Your task to perform on an android device: turn pop-ups off in chrome Image 0: 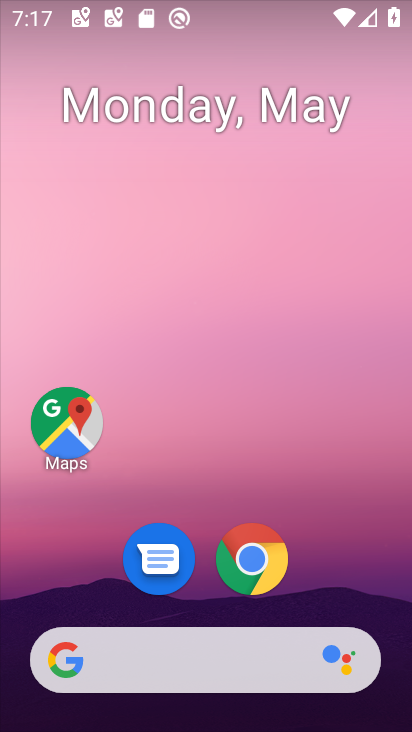
Step 0: drag from (389, 646) to (310, 69)
Your task to perform on an android device: turn pop-ups off in chrome Image 1: 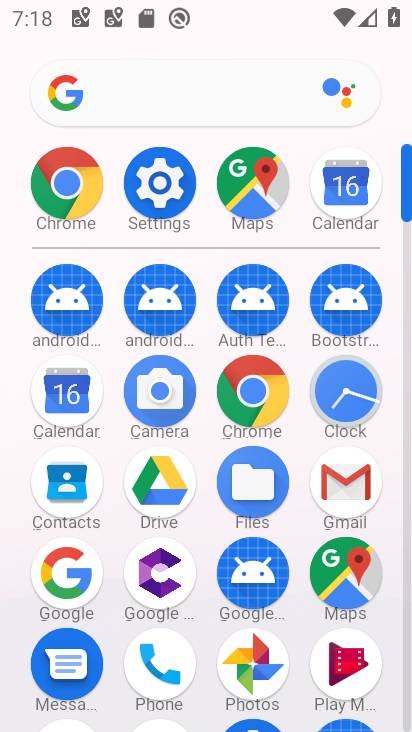
Step 1: click (42, 180)
Your task to perform on an android device: turn pop-ups off in chrome Image 2: 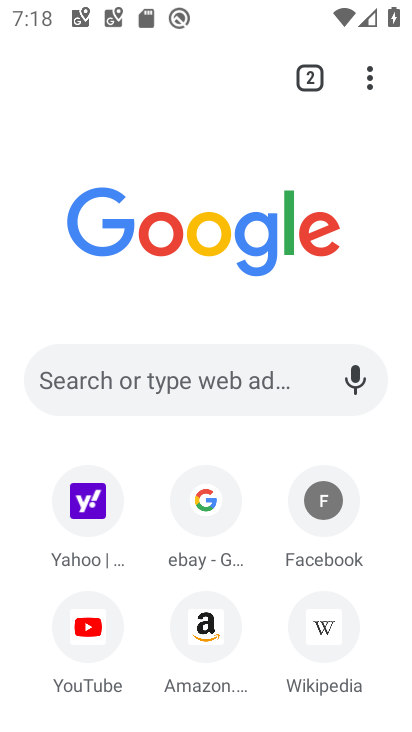
Step 2: click (364, 68)
Your task to perform on an android device: turn pop-ups off in chrome Image 3: 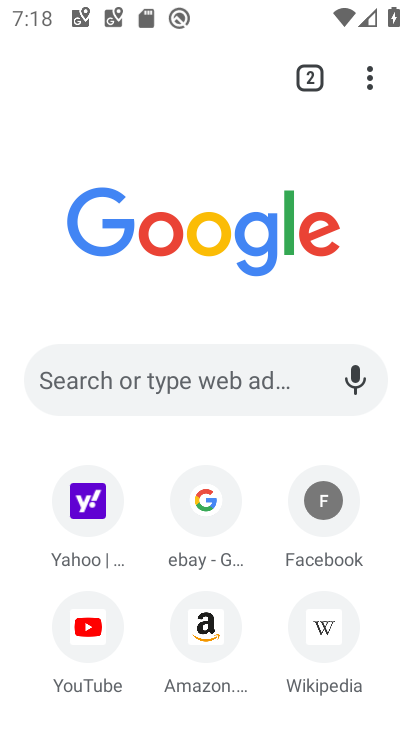
Step 3: click (369, 69)
Your task to perform on an android device: turn pop-ups off in chrome Image 4: 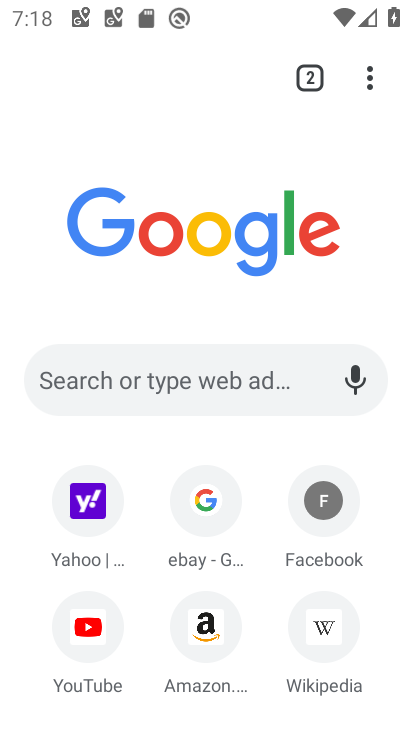
Step 4: click (369, 69)
Your task to perform on an android device: turn pop-ups off in chrome Image 5: 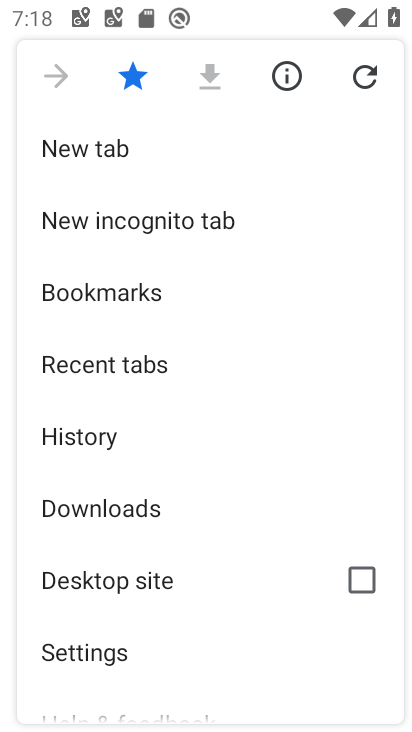
Step 5: drag from (97, 659) to (158, 423)
Your task to perform on an android device: turn pop-ups off in chrome Image 6: 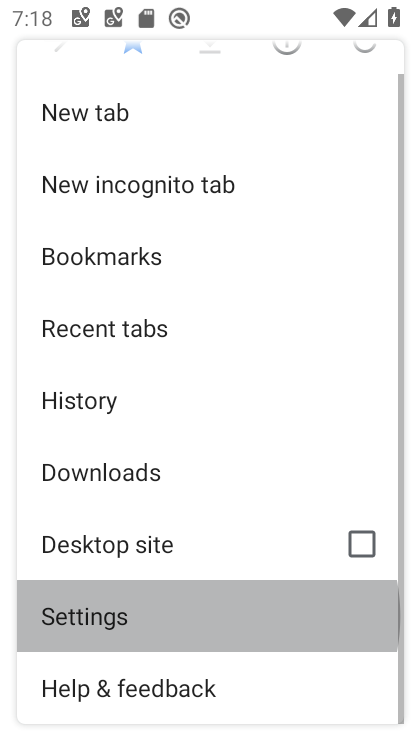
Step 6: click (175, 301)
Your task to perform on an android device: turn pop-ups off in chrome Image 7: 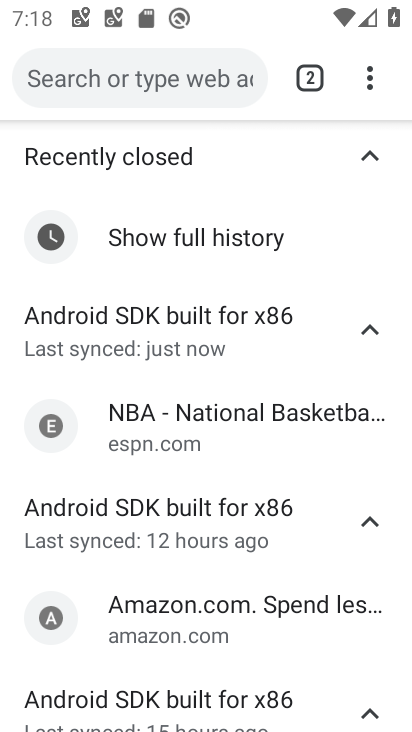
Step 7: press back button
Your task to perform on an android device: turn pop-ups off in chrome Image 8: 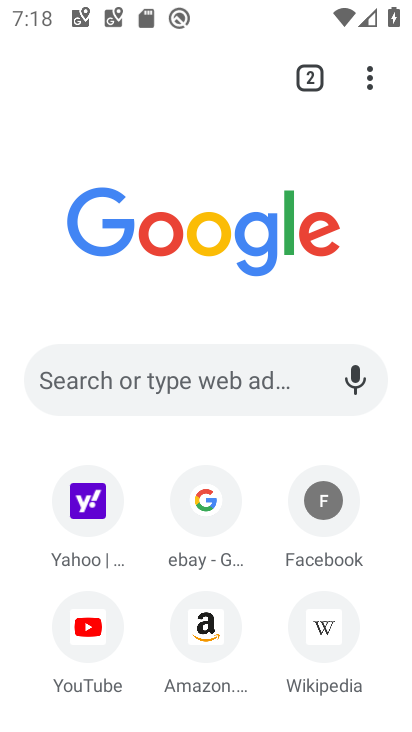
Step 8: click (369, 69)
Your task to perform on an android device: turn pop-ups off in chrome Image 9: 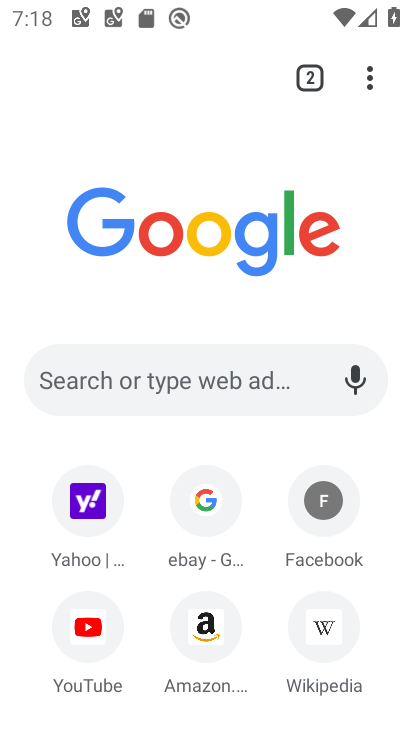
Step 9: click (369, 69)
Your task to perform on an android device: turn pop-ups off in chrome Image 10: 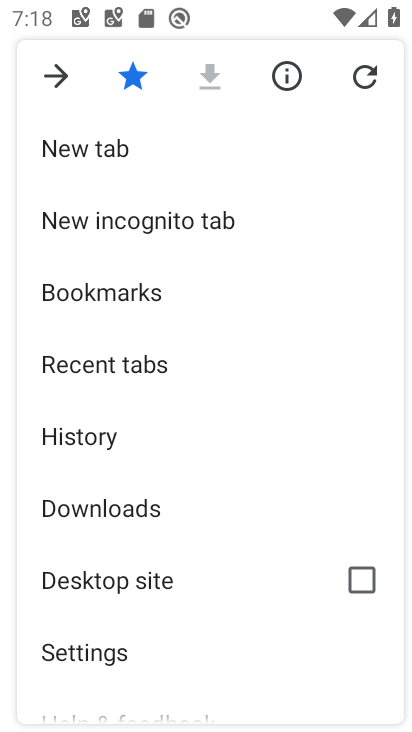
Step 10: click (89, 640)
Your task to perform on an android device: turn pop-ups off in chrome Image 11: 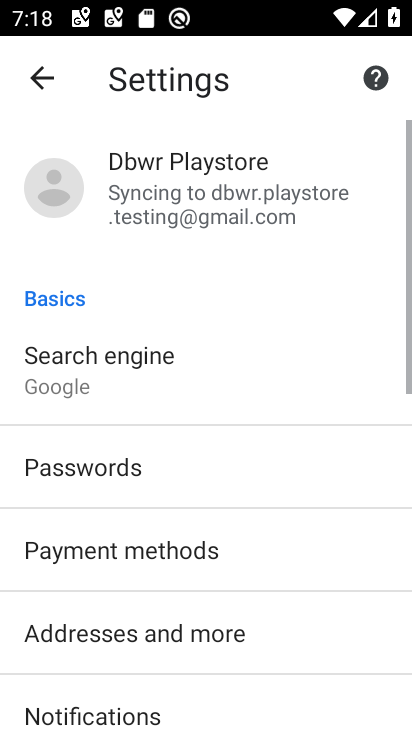
Step 11: drag from (89, 641) to (125, 504)
Your task to perform on an android device: turn pop-ups off in chrome Image 12: 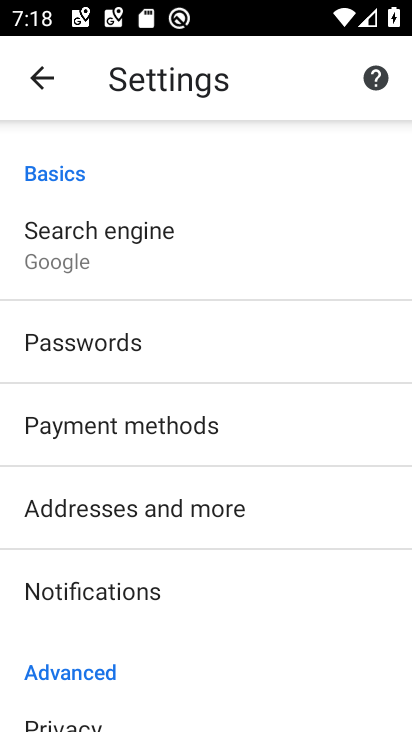
Step 12: drag from (95, 580) to (116, 127)
Your task to perform on an android device: turn pop-ups off in chrome Image 13: 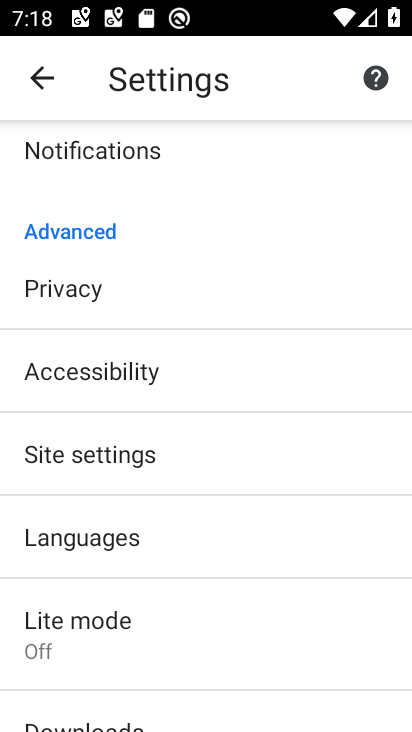
Step 13: click (164, 451)
Your task to perform on an android device: turn pop-ups off in chrome Image 14: 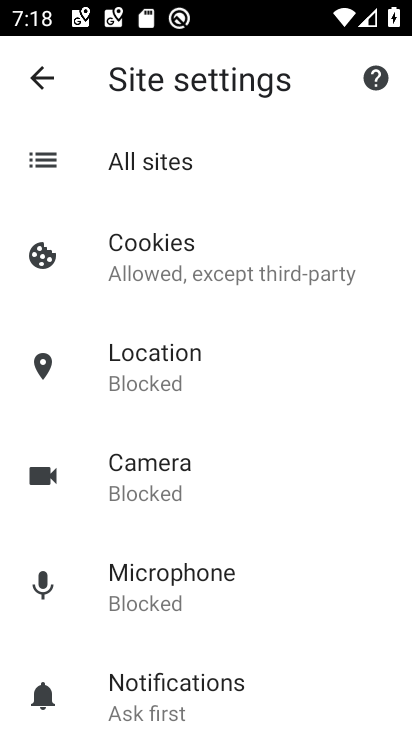
Step 14: drag from (136, 562) to (178, 386)
Your task to perform on an android device: turn pop-ups off in chrome Image 15: 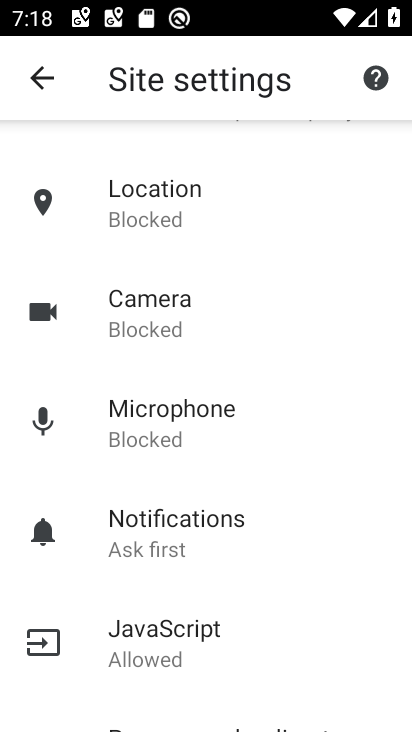
Step 15: drag from (174, 618) to (234, 201)
Your task to perform on an android device: turn pop-ups off in chrome Image 16: 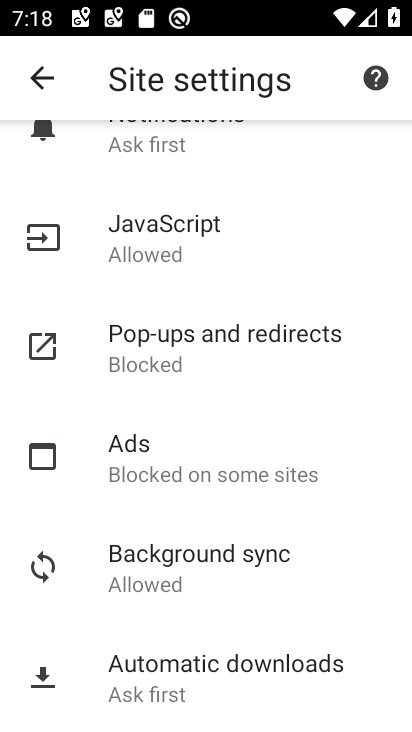
Step 16: click (194, 375)
Your task to perform on an android device: turn pop-ups off in chrome Image 17: 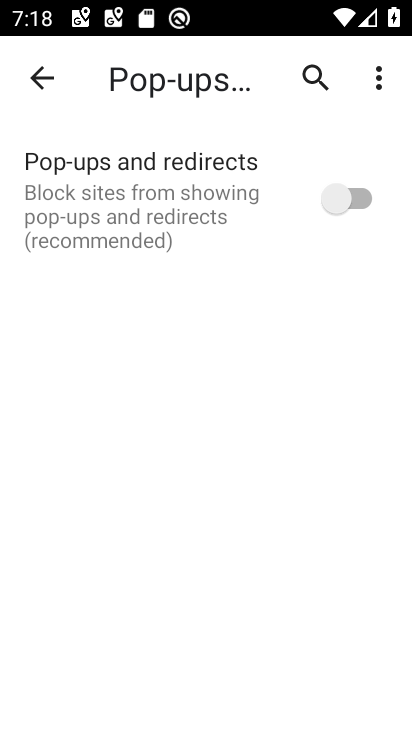
Step 17: task complete